Your task to perform on an android device: Search for razer naga on walmart.com, select the first entry, and add it to the cart. Image 0: 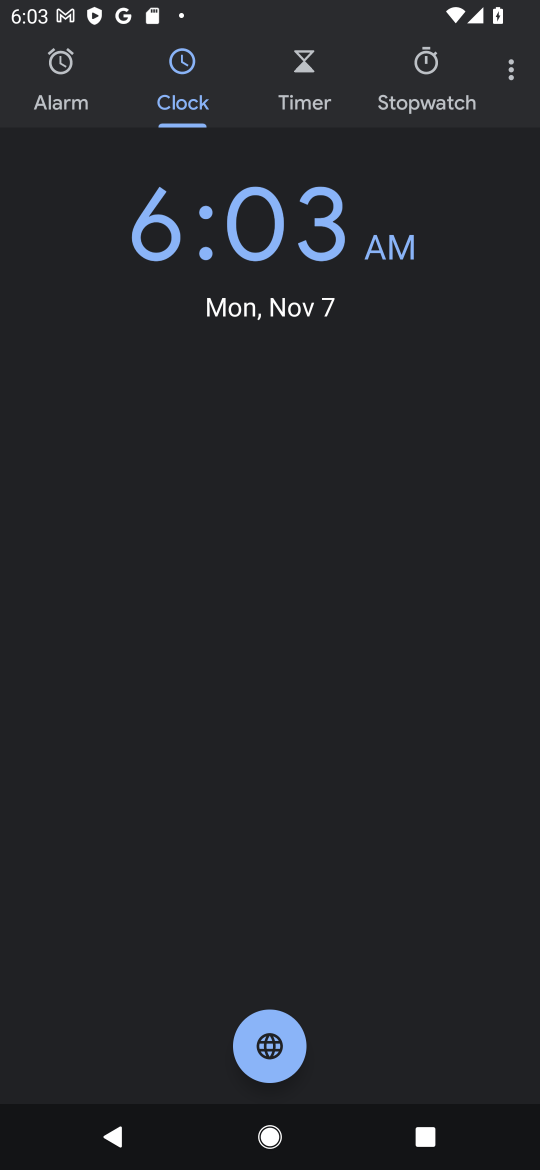
Step 0: task complete